Your task to perform on an android device: check the backup settings in the google photos Image 0: 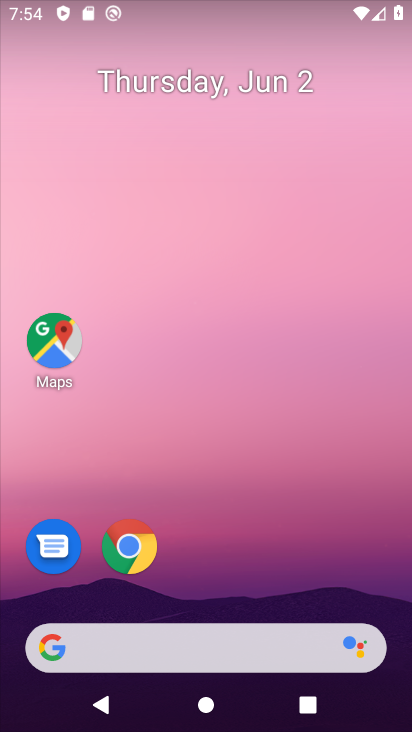
Step 0: drag from (264, 697) to (179, 209)
Your task to perform on an android device: check the backup settings in the google photos Image 1: 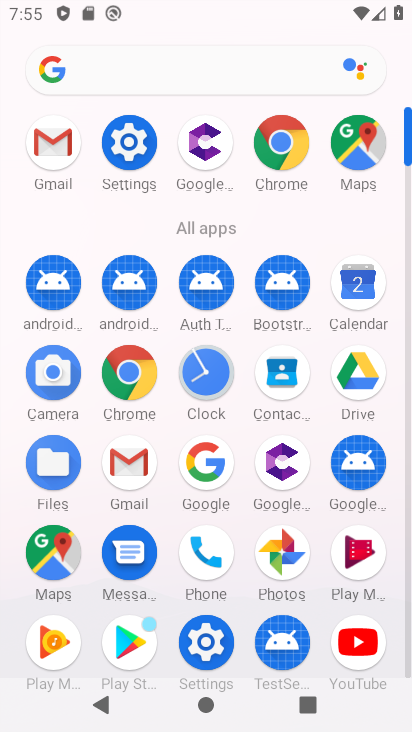
Step 1: click (281, 552)
Your task to perform on an android device: check the backup settings in the google photos Image 2: 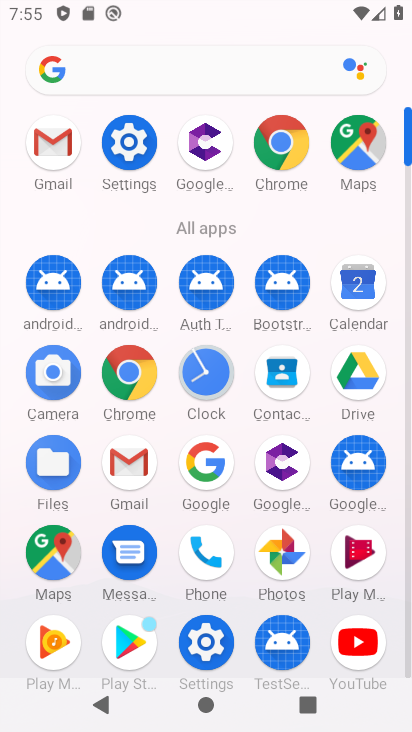
Step 2: click (282, 551)
Your task to perform on an android device: check the backup settings in the google photos Image 3: 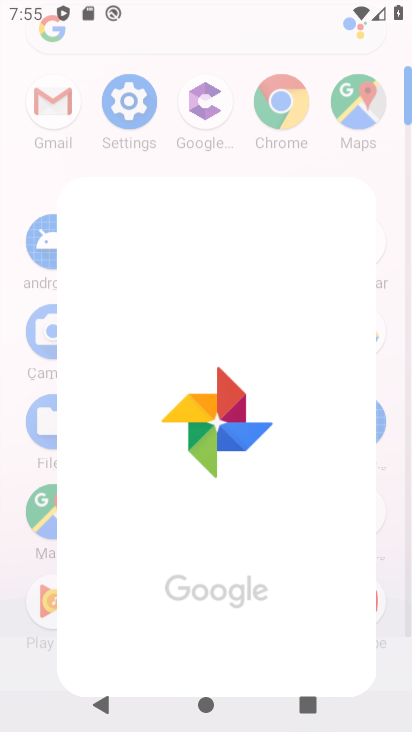
Step 3: click (282, 551)
Your task to perform on an android device: check the backup settings in the google photos Image 4: 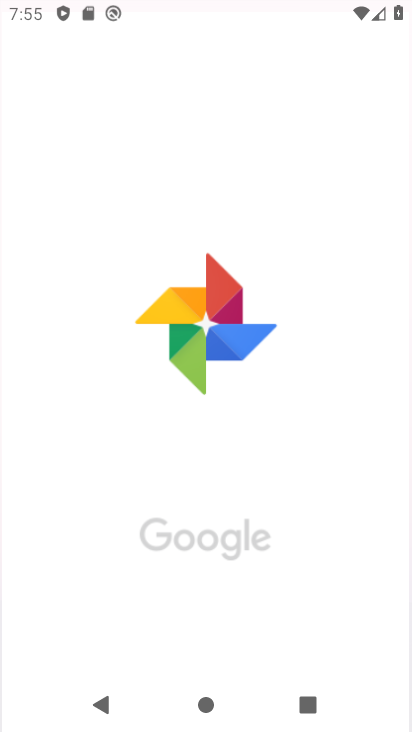
Step 4: click (283, 551)
Your task to perform on an android device: check the backup settings in the google photos Image 5: 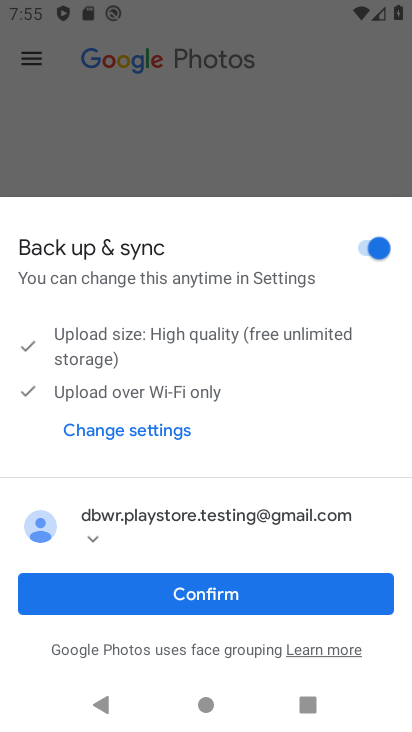
Step 5: click (240, 596)
Your task to perform on an android device: check the backup settings in the google photos Image 6: 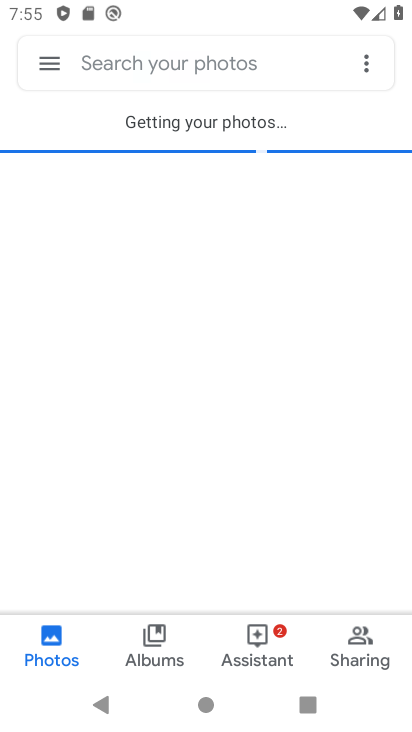
Step 6: click (47, 62)
Your task to perform on an android device: check the backup settings in the google photos Image 7: 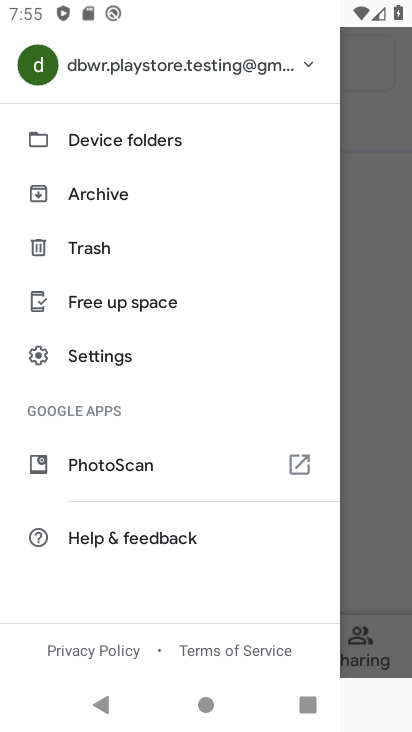
Step 7: click (102, 355)
Your task to perform on an android device: check the backup settings in the google photos Image 8: 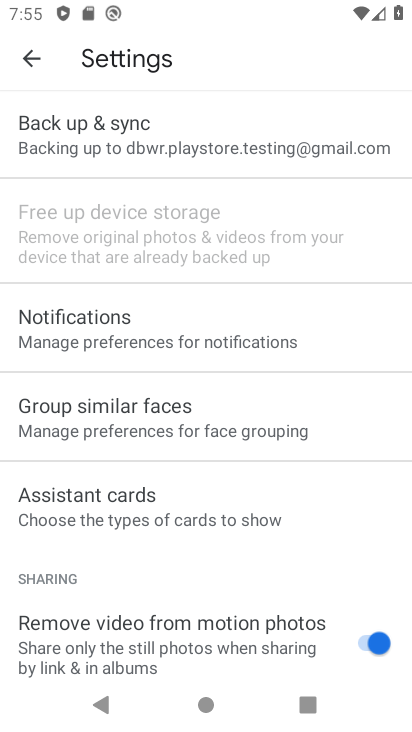
Step 8: click (88, 128)
Your task to perform on an android device: check the backup settings in the google photos Image 9: 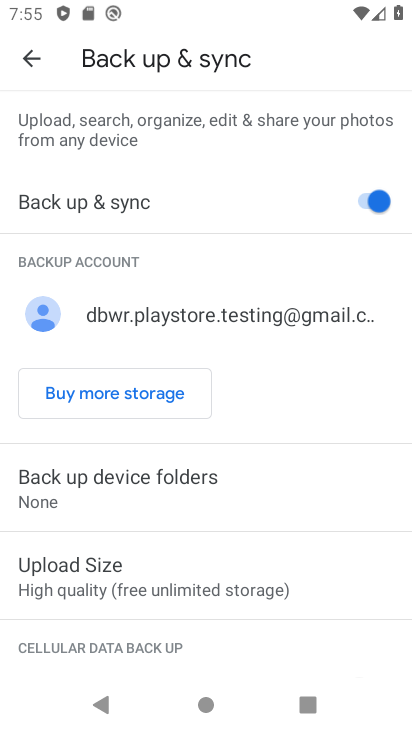
Step 9: click (66, 565)
Your task to perform on an android device: check the backup settings in the google photos Image 10: 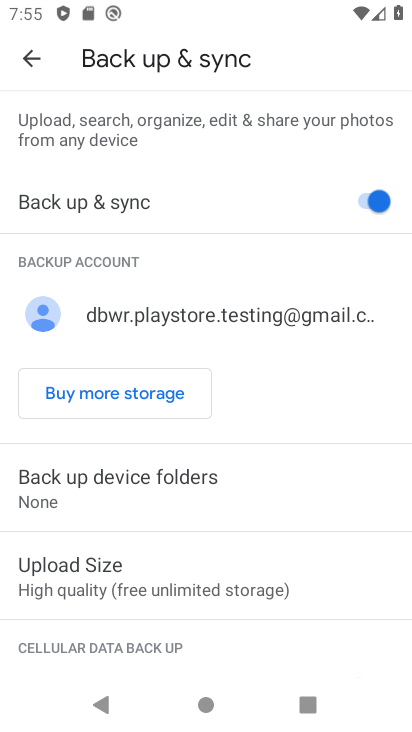
Step 10: click (66, 572)
Your task to perform on an android device: check the backup settings in the google photos Image 11: 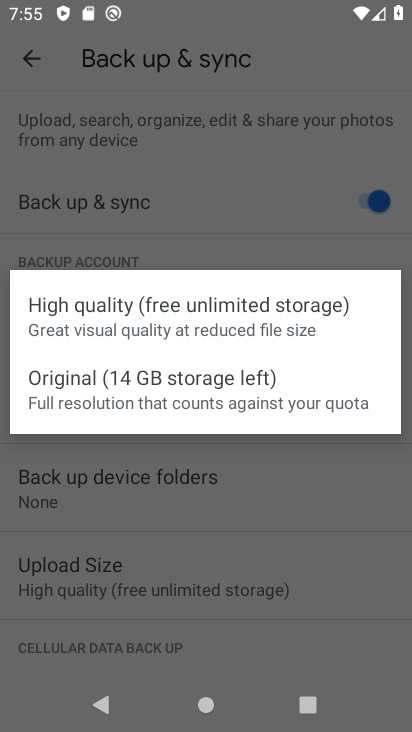
Step 11: click (67, 573)
Your task to perform on an android device: check the backup settings in the google photos Image 12: 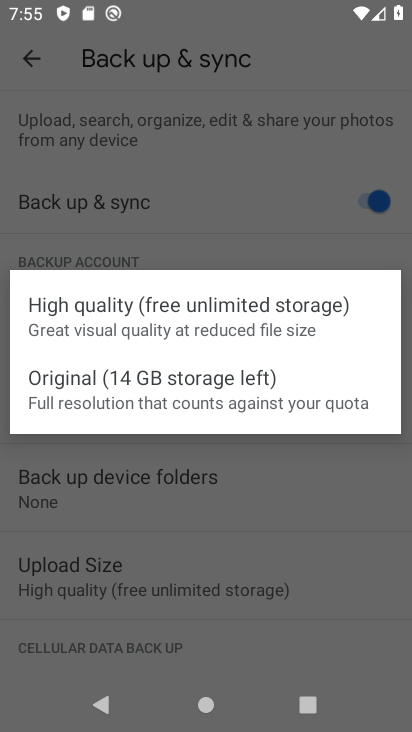
Step 12: click (58, 385)
Your task to perform on an android device: check the backup settings in the google photos Image 13: 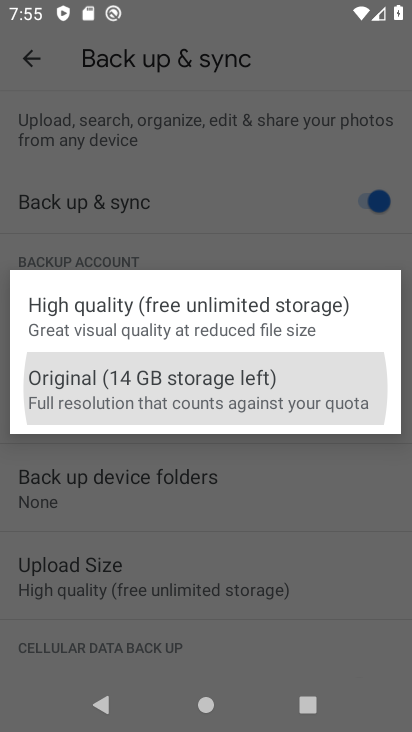
Step 13: click (58, 384)
Your task to perform on an android device: check the backup settings in the google photos Image 14: 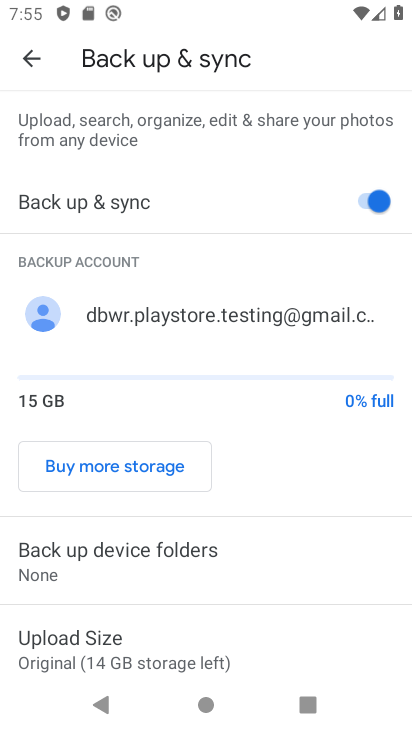
Step 14: task complete